Your task to perform on an android device: Set the phone to "Do not disturb". Image 0: 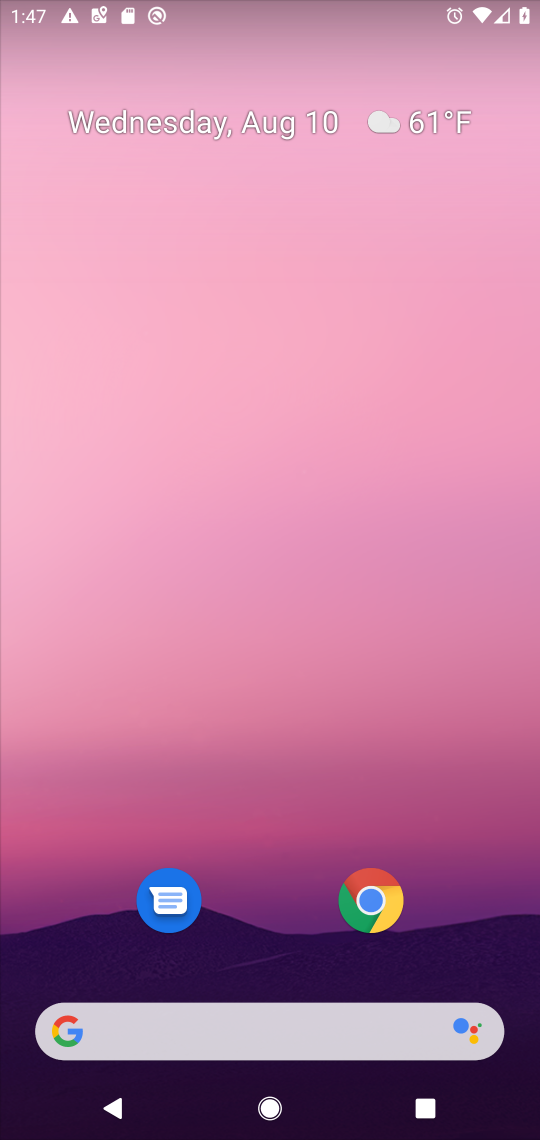
Step 0: press home button
Your task to perform on an android device: Set the phone to "Do not disturb". Image 1: 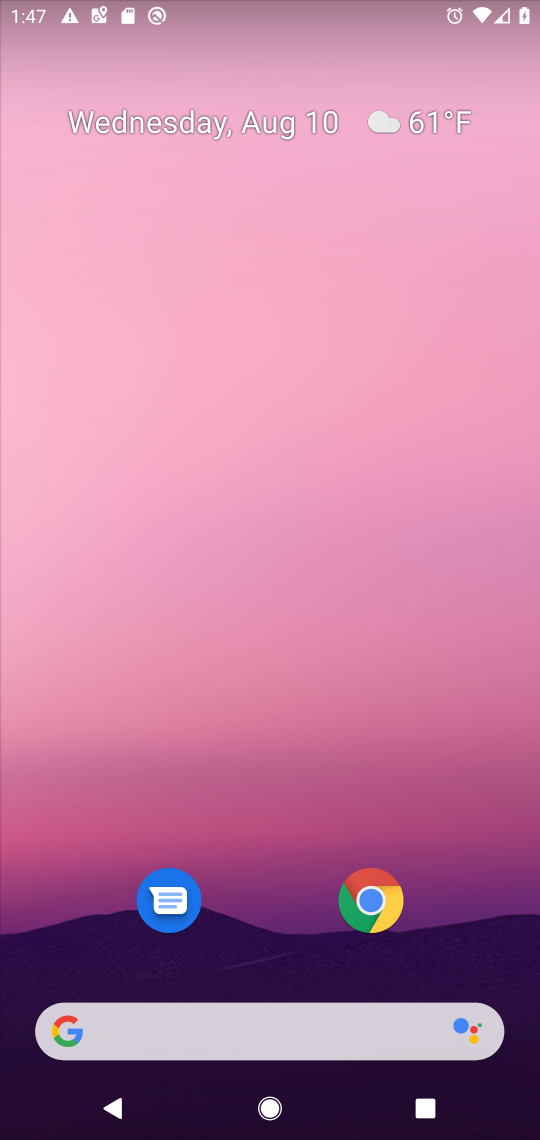
Step 1: drag from (267, 884) to (325, 56)
Your task to perform on an android device: Set the phone to "Do not disturb". Image 2: 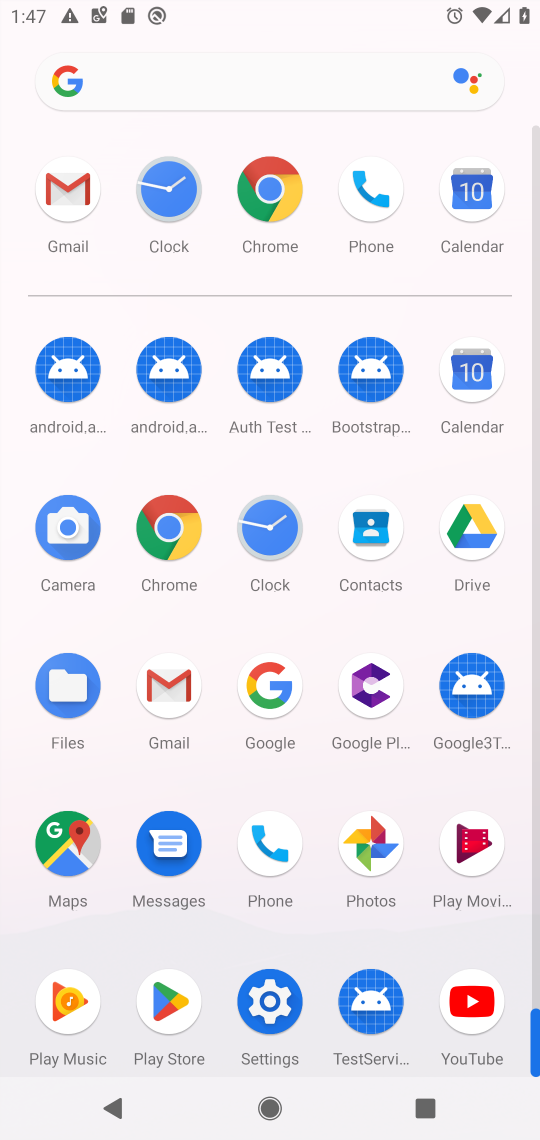
Step 2: click (273, 1005)
Your task to perform on an android device: Set the phone to "Do not disturb". Image 3: 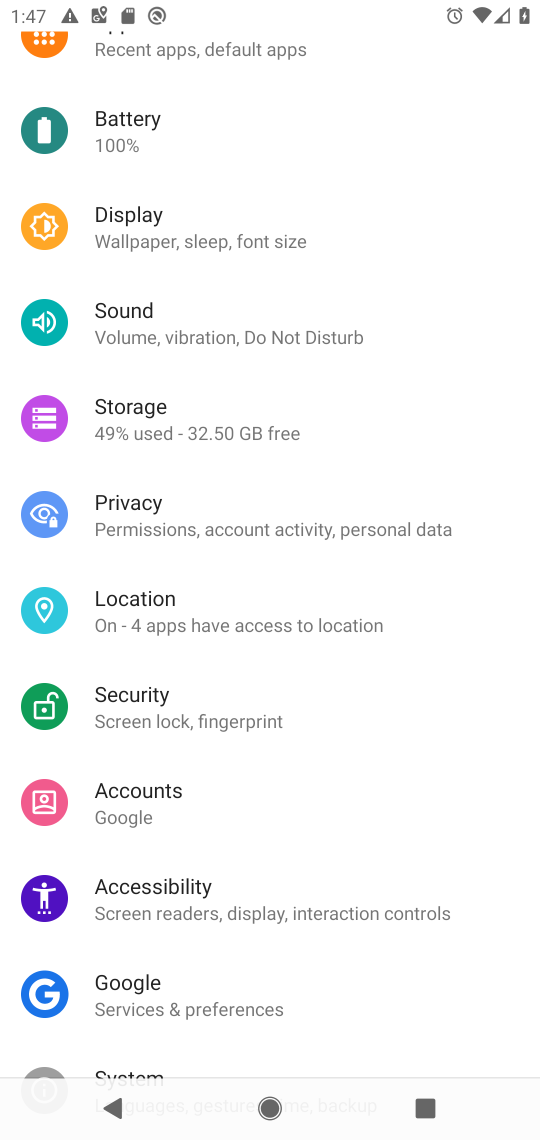
Step 3: click (298, 329)
Your task to perform on an android device: Set the phone to "Do not disturb". Image 4: 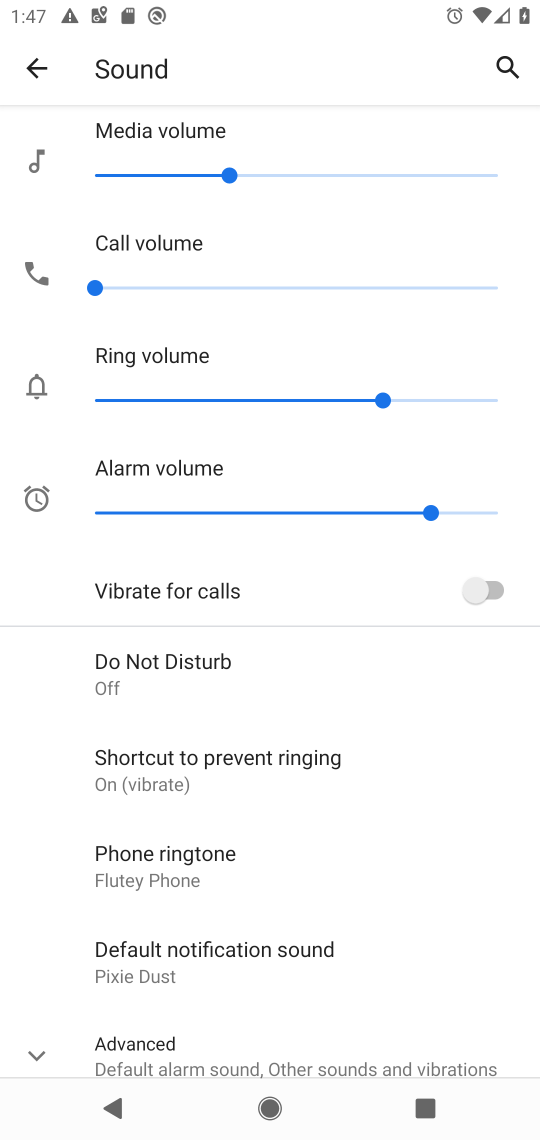
Step 4: click (174, 670)
Your task to perform on an android device: Set the phone to "Do not disturb". Image 5: 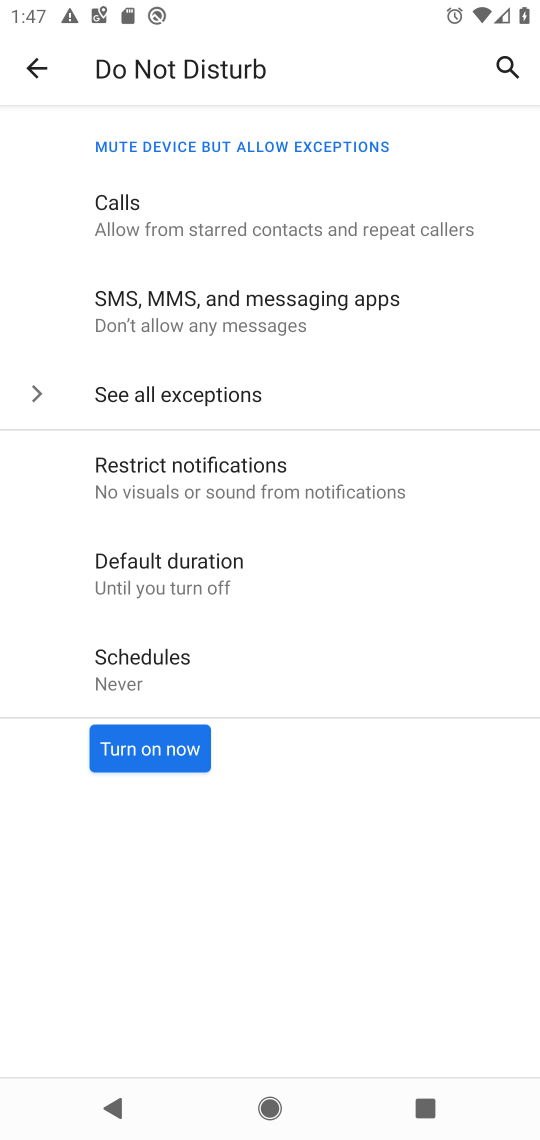
Step 5: click (184, 753)
Your task to perform on an android device: Set the phone to "Do not disturb". Image 6: 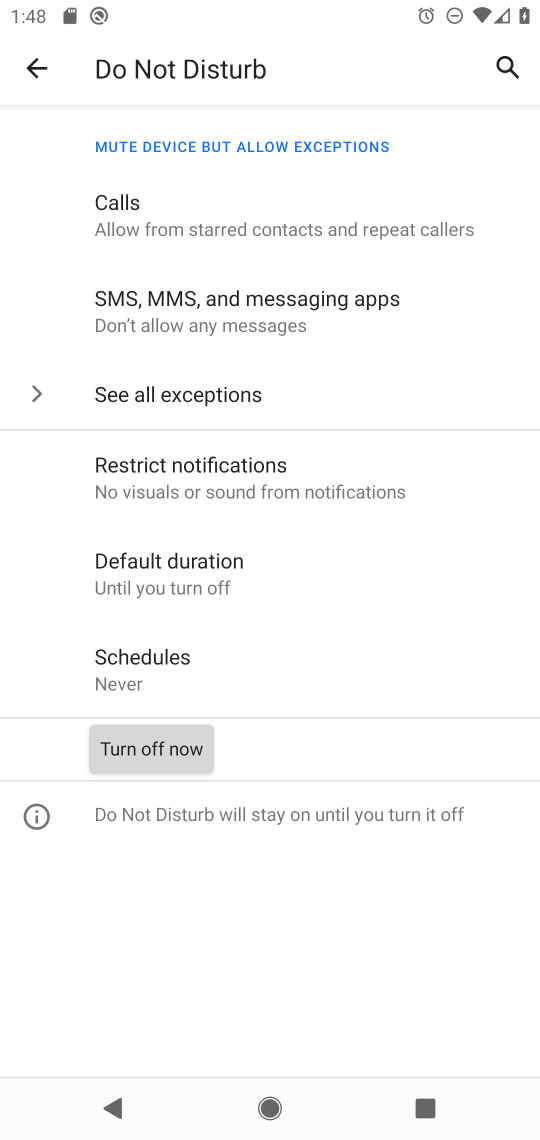
Step 6: task complete